Your task to perform on an android device: see tabs open on other devices in the chrome app Image 0: 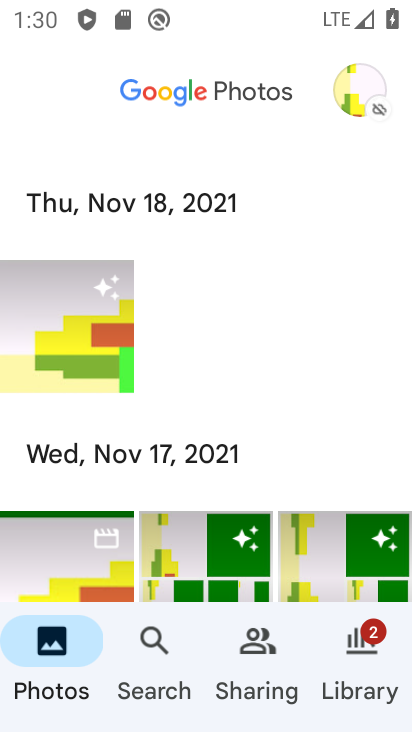
Step 0: press home button
Your task to perform on an android device: see tabs open on other devices in the chrome app Image 1: 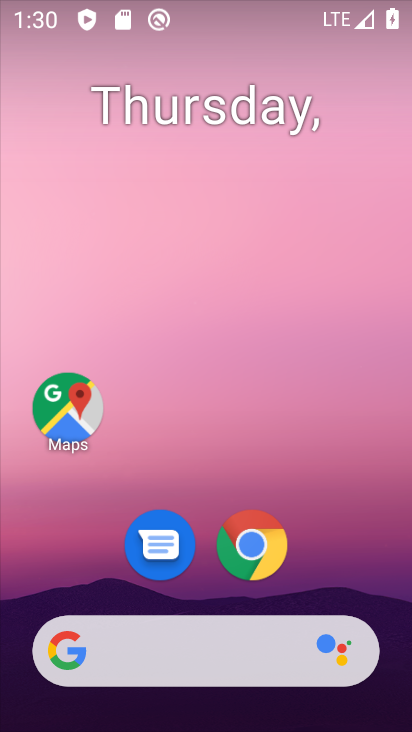
Step 1: click (259, 528)
Your task to perform on an android device: see tabs open on other devices in the chrome app Image 2: 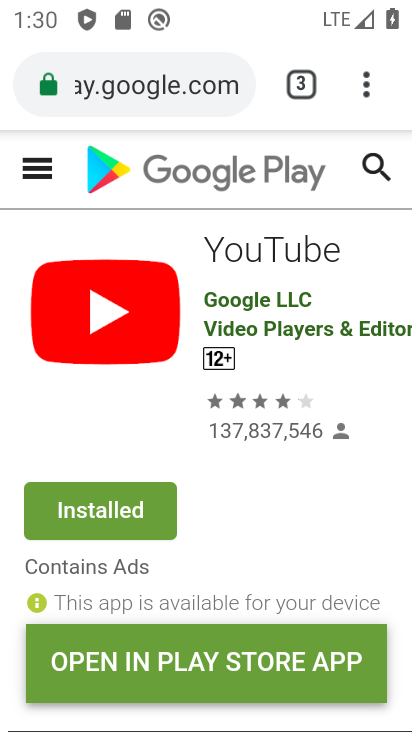
Step 2: click (366, 87)
Your task to perform on an android device: see tabs open on other devices in the chrome app Image 3: 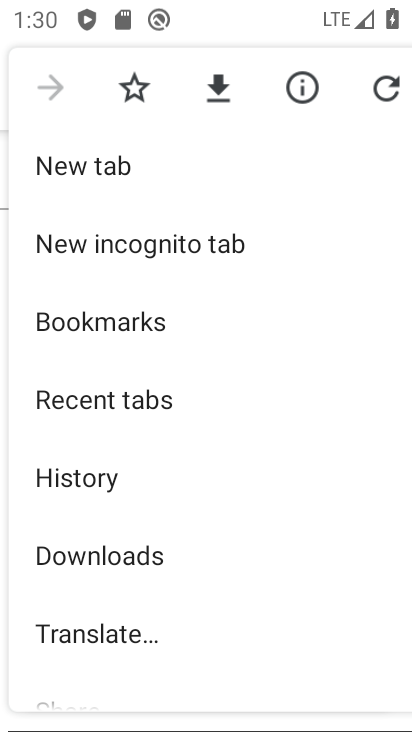
Step 3: click (79, 405)
Your task to perform on an android device: see tabs open on other devices in the chrome app Image 4: 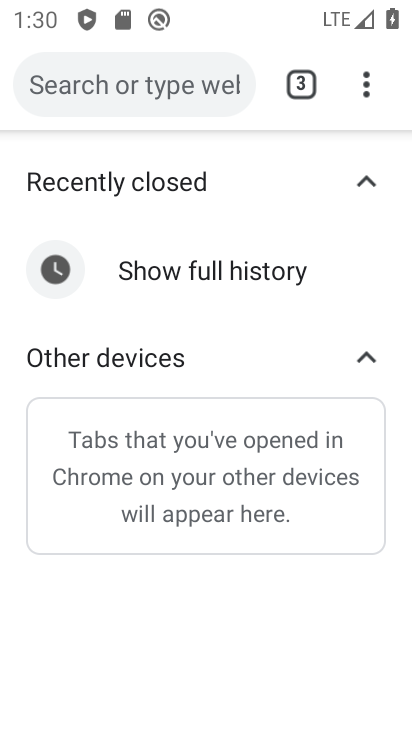
Step 4: task complete